Your task to perform on an android device: Open network settings Image 0: 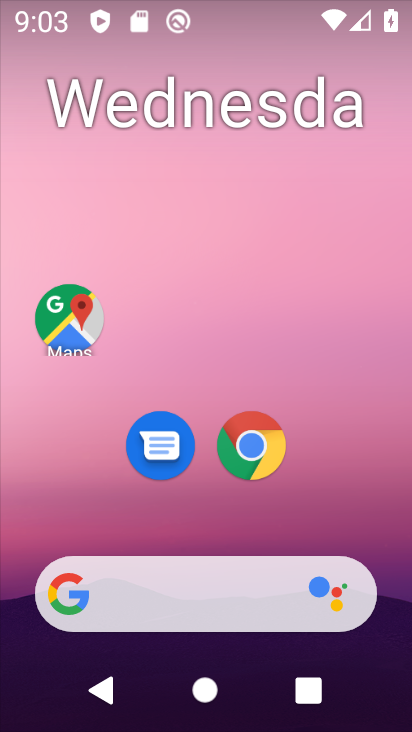
Step 0: drag from (161, 594) to (256, 115)
Your task to perform on an android device: Open network settings Image 1: 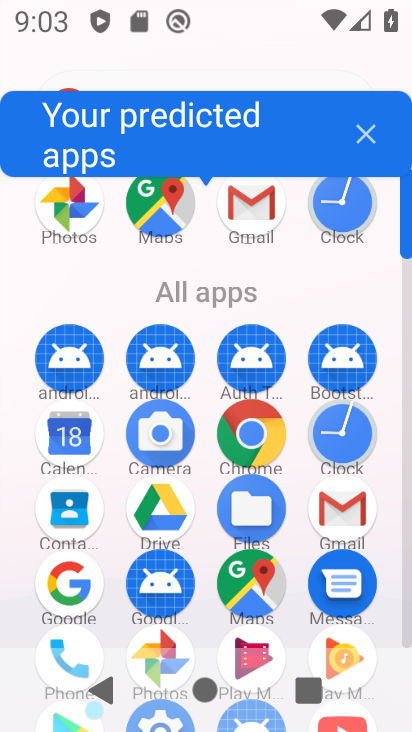
Step 1: drag from (203, 638) to (283, 307)
Your task to perform on an android device: Open network settings Image 2: 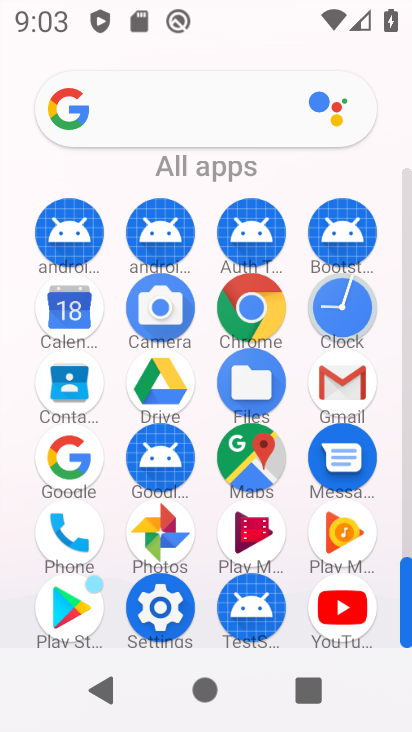
Step 2: click (165, 607)
Your task to perform on an android device: Open network settings Image 3: 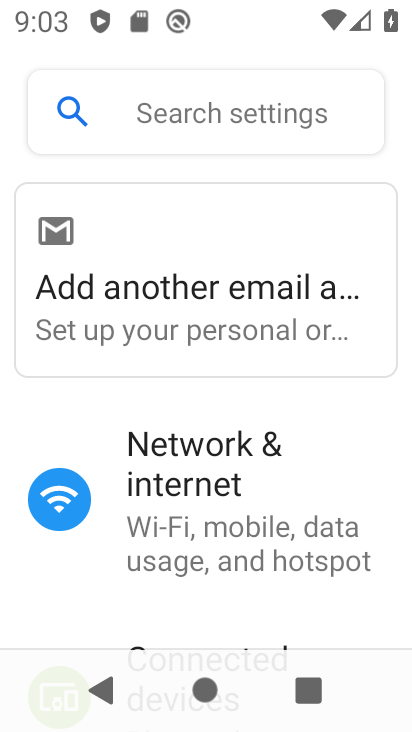
Step 3: click (194, 465)
Your task to perform on an android device: Open network settings Image 4: 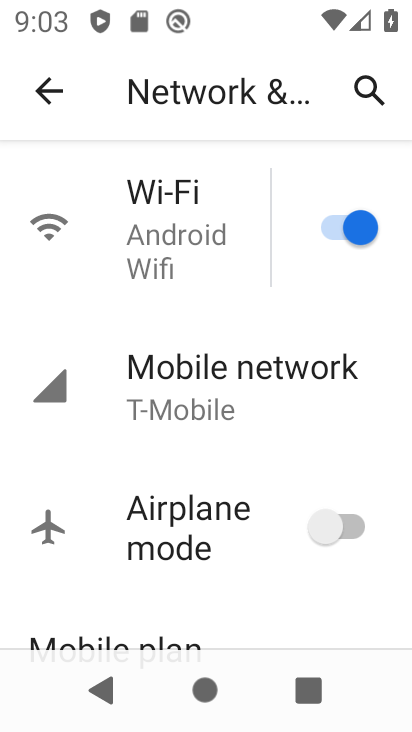
Step 4: task complete